Your task to perform on an android device: Open wifi settings Image 0: 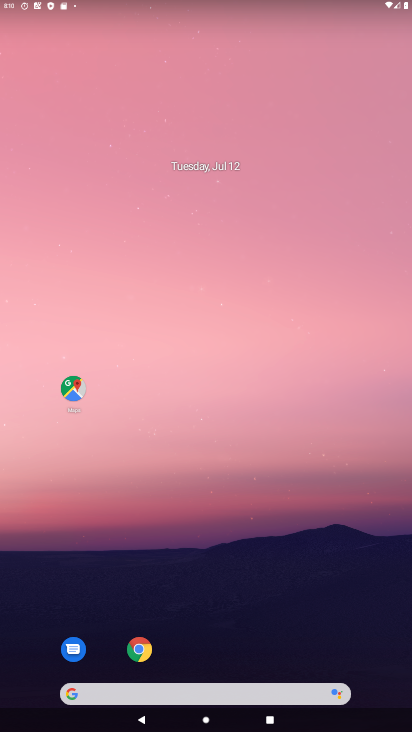
Step 0: drag from (285, 637) to (214, 69)
Your task to perform on an android device: Open wifi settings Image 1: 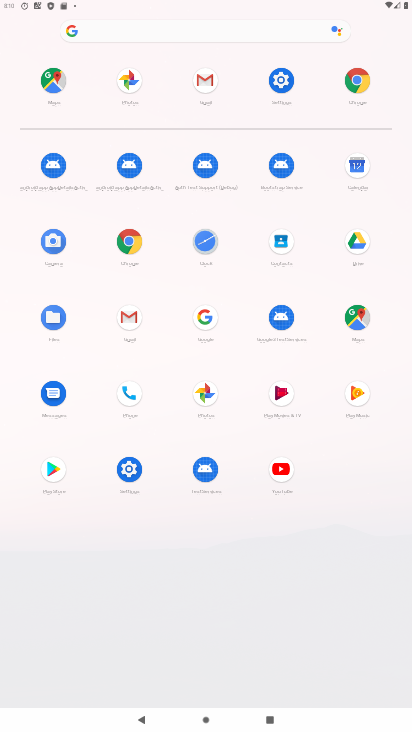
Step 1: click (278, 88)
Your task to perform on an android device: Open wifi settings Image 2: 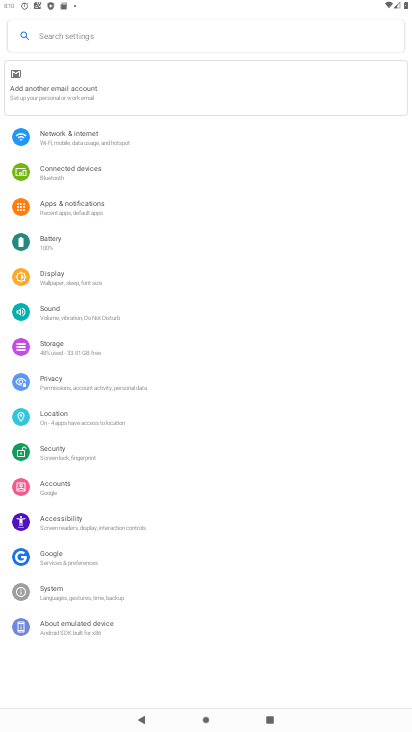
Step 2: click (63, 141)
Your task to perform on an android device: Open wifi settings Image 3: 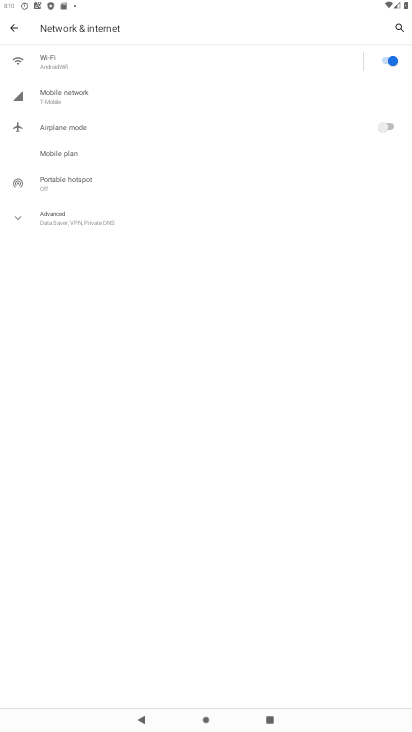
Step 3: click (128, 64)
Your task to perform on an android device: Open wifi settings Image 4: 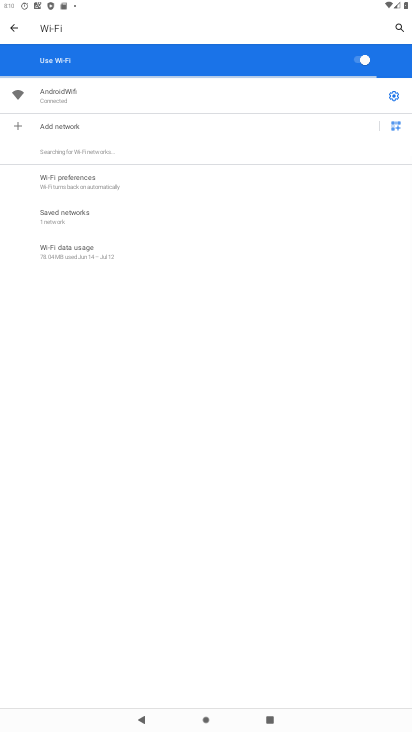
Step 4: click (398, 98)
Your task to perform on an android device: Open wifi settings Image 5: 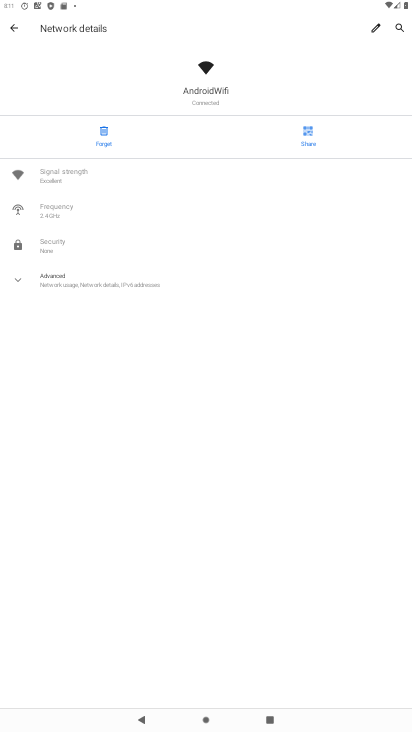
Step 5: task complete